Your task to perform on an android device: Open Google Chrome and open the bookmarks view Image 0: 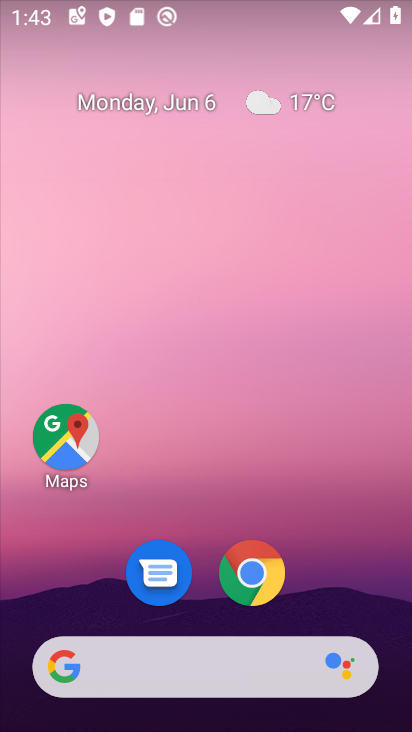
Step 0: click (270, 573)
Your task to perform on an android device: Open Google Chrome and open the bookmarks view Image 1: 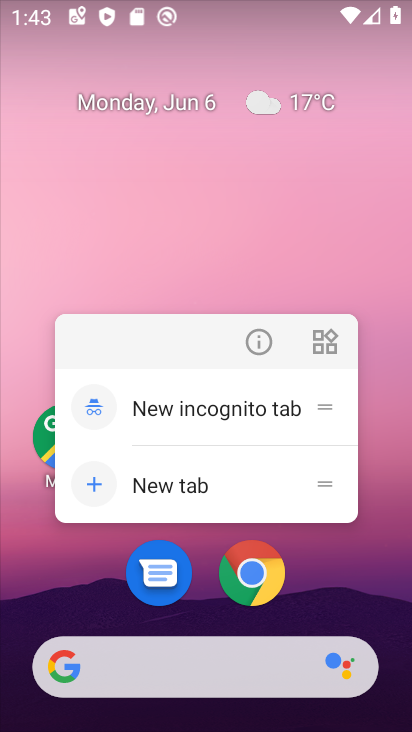
Step 1: click (255, 578)
Your task to perform on an android device: Open Google Chrome and open the bookmarks view Image 2: 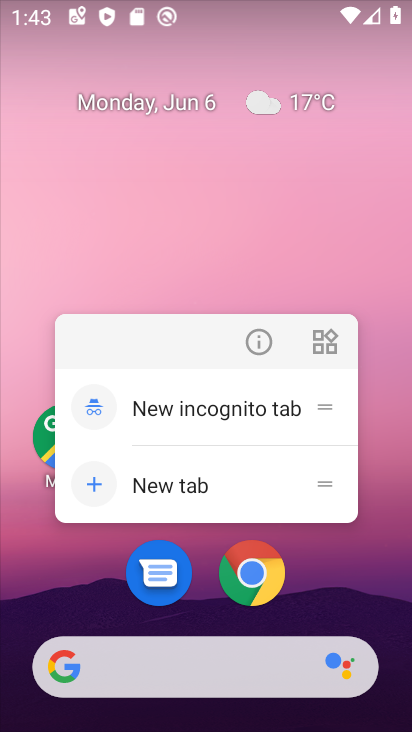
Step 2: click (243, 571)
Your task to perform on an android device: Open Google Chrome and open the bookmarks view Image 3: 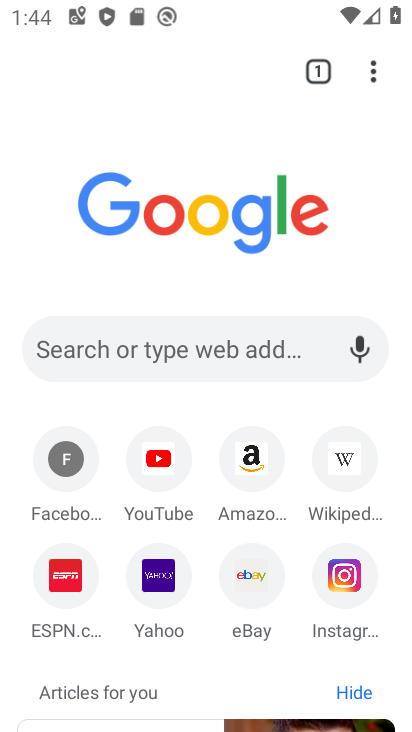
Step 3: drag from (374, 66) to (162, 277)
Your task to perform on an android device: Open Google Chrome and open the bookmarks view Image 4: 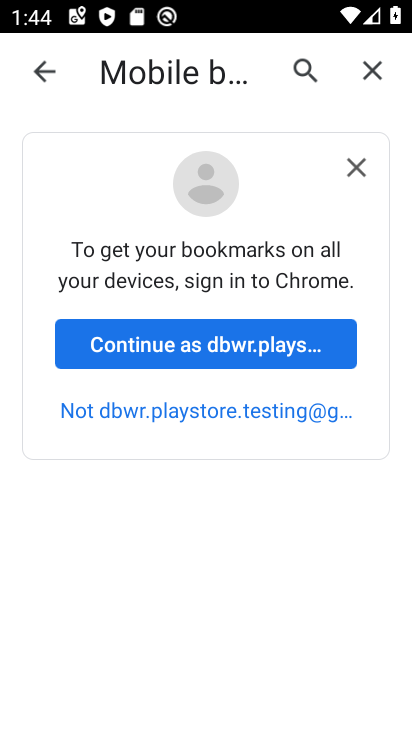
Step 4: click (357, 147)
Your task to perform on an android device: Open Google Chrome and open the bookmarks view Image 5: 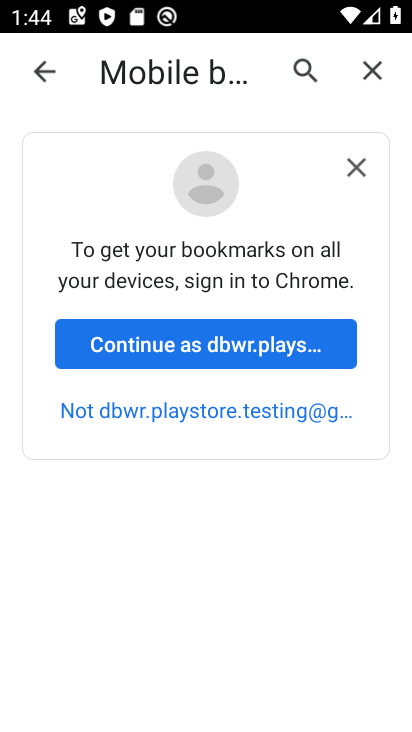
Step 5: click (255, 340)
Your task to perform on an android device: Open Google Chrome and open the bookmarks view Image 6: 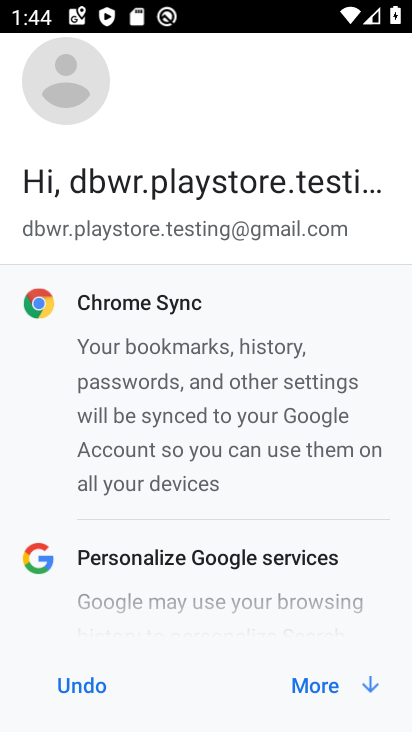
Step 6: click (305, 680)
Your task to perform on an android device: Open Google Chrome and open the bookmarks view Image 7: 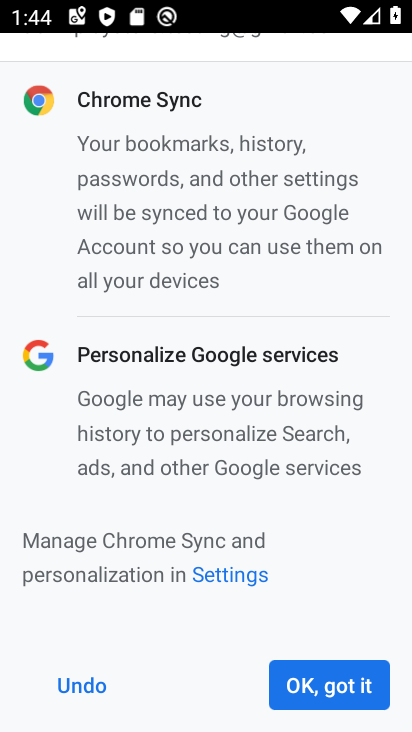
Step 7: click (305, 681)
Your task to perform on an android device: Open Google Chrome and open the bookmarks view Image 8: 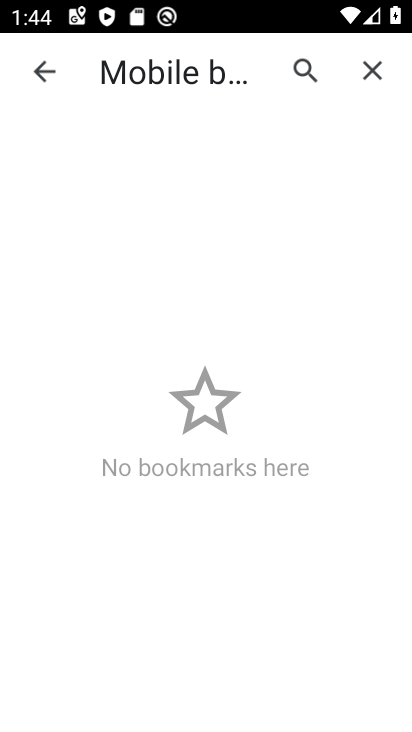
Step 8: task complete